Your task to perform on an android device: Search for vegetarian restaurants on Maps Image 0: 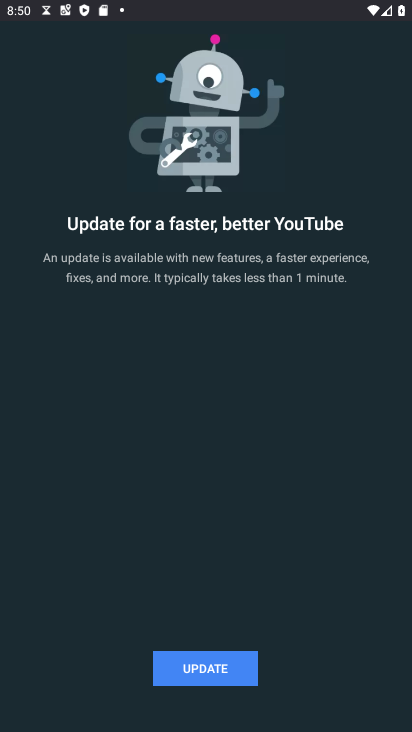
Step 0: press back button
Your task to perform on an android device: Search for vegetarian restaurants on Maps Image 1: 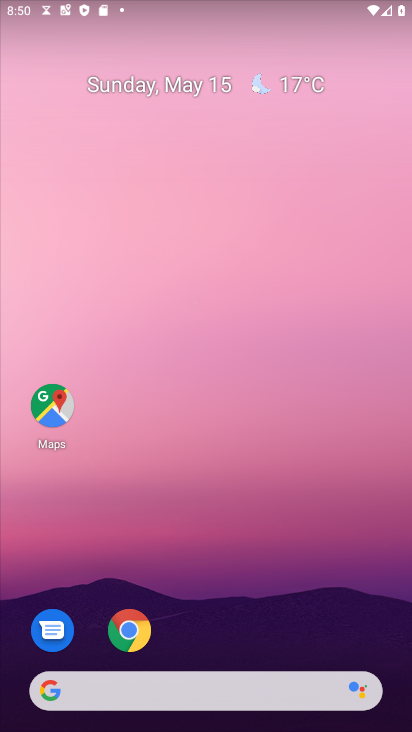
Step 1: drag from (313, 609) to (359, 98)
Your task to perform on an android device: Search for vegetarian restaurants on Maps Image 2: 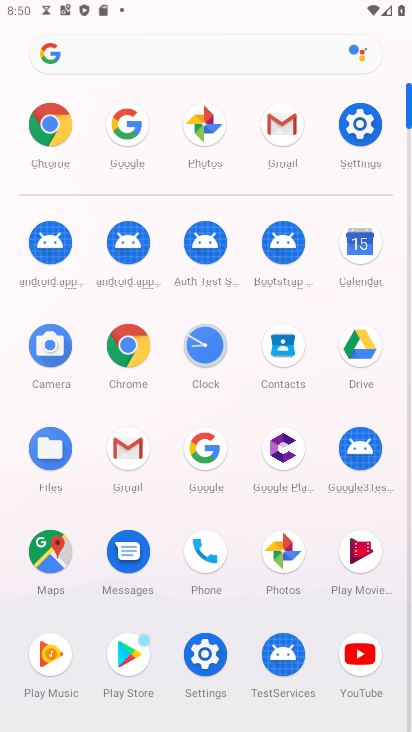
Step 2: click (32, 547)
Your task to perform on an android device: Search for vegetarian restaurants on Maps Image 3: 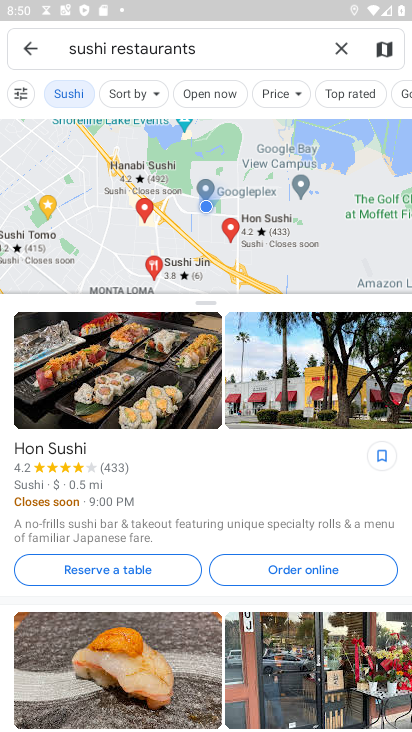
Step 3: click (336, 43)
Your task to perform on an android device: Search for vegetarian restaurants on Maps Image 4: 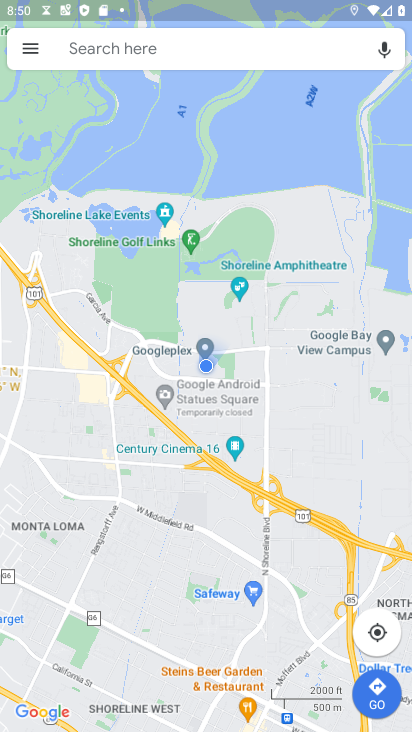
Step 4: click (264, 47)
Your task to perform on an android device: Search for vegetarian restaurants on Maps Image 5: 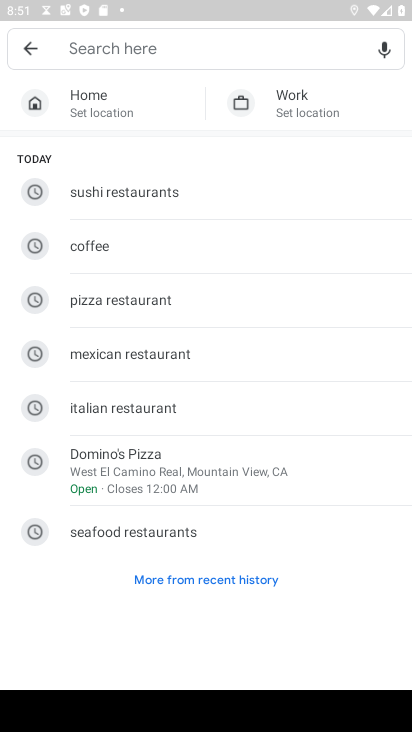
Step 5: type "vegetarian resturents"
Your task to perform on an android device: Search for vegetarian restaurants on Maps Image 6: 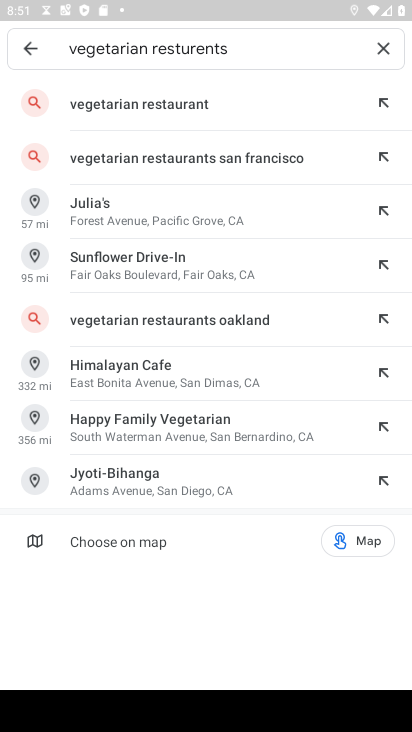
Step 6: click (236, 107)
Your task to perform on an android device: Search for vegetarian restaurants on Maps Image 7: 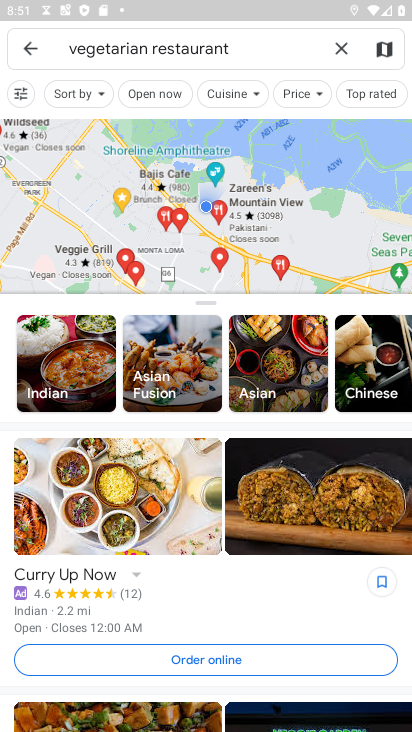
Step 7: task complete